Your task to perform on an android device: turn on the 12-hour format for clock Image 0: 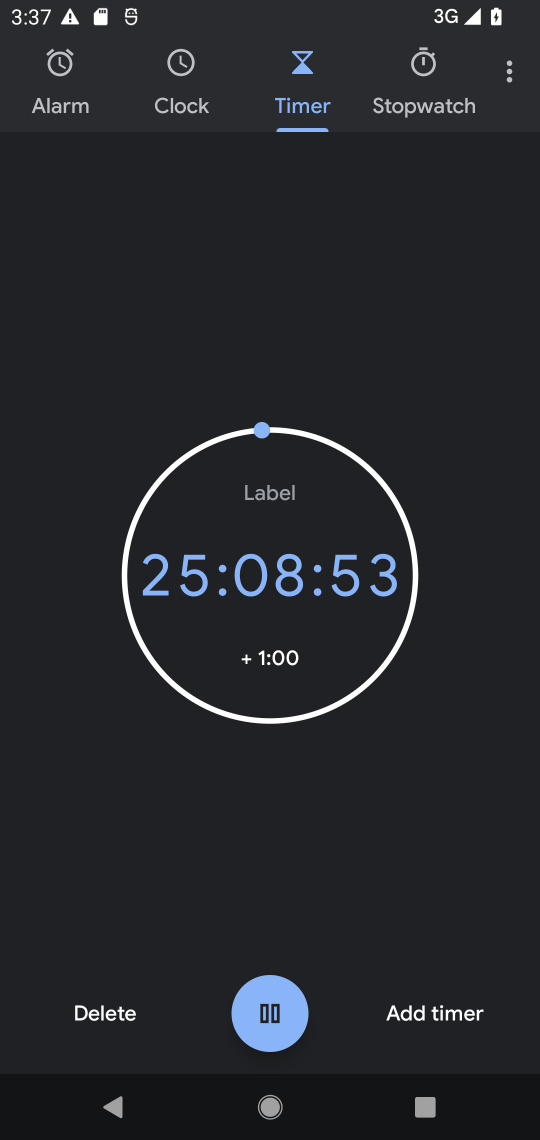
Step 0: click (522, 71)
Your task to perform on an android device: turn on the 12-hour format for clock Image 1: 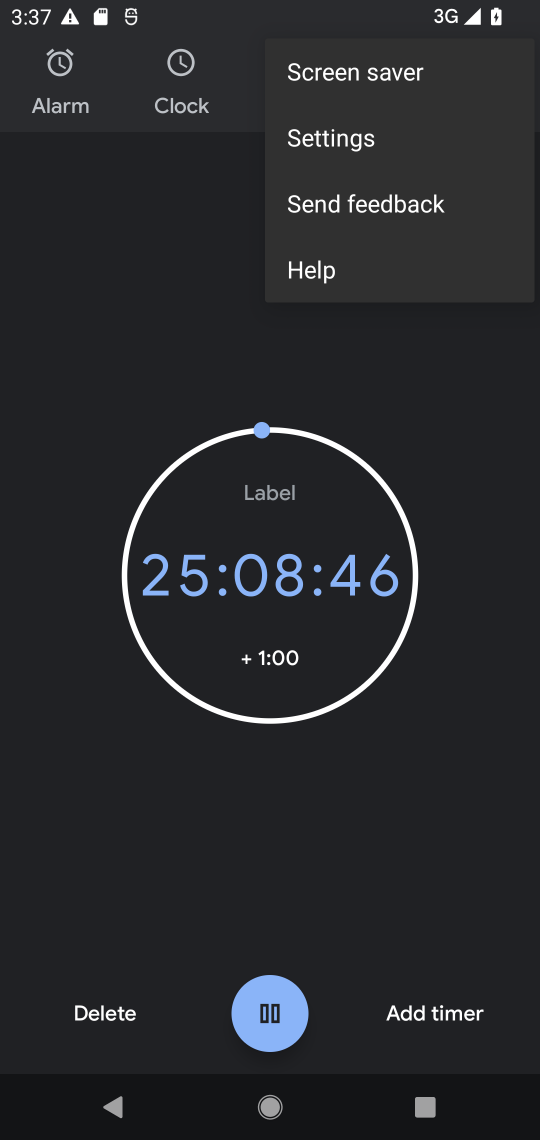
Step 1: click (354, 149)
Your task to perform on an android device: turn on the 12-hour format for clock Image 2: 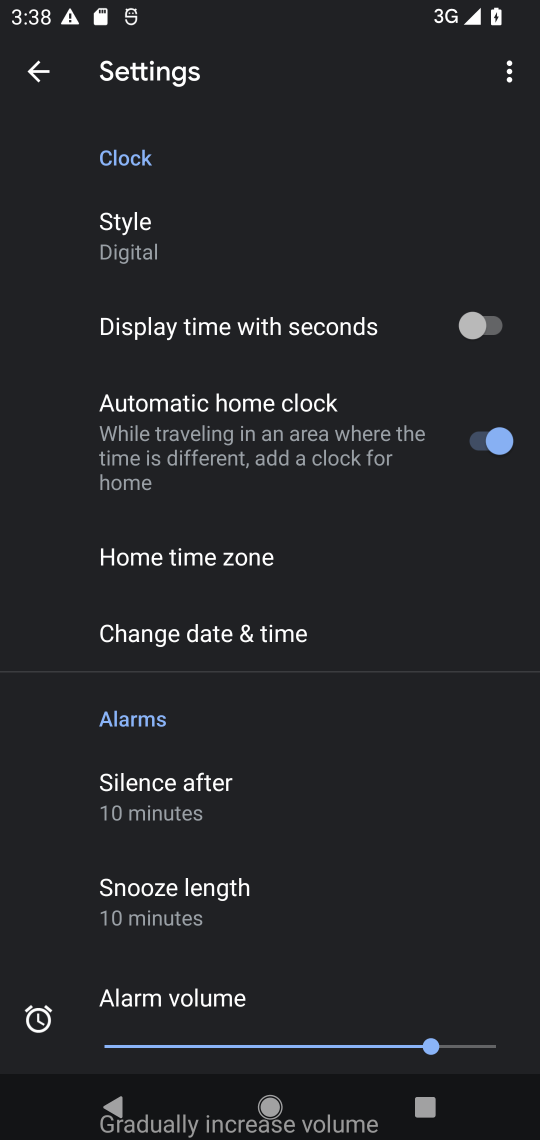
Step 2: drag from (152, 1018) to (269, 205)
Your task to perform on an android device: turn on the 12-hour format for clock Image 3: 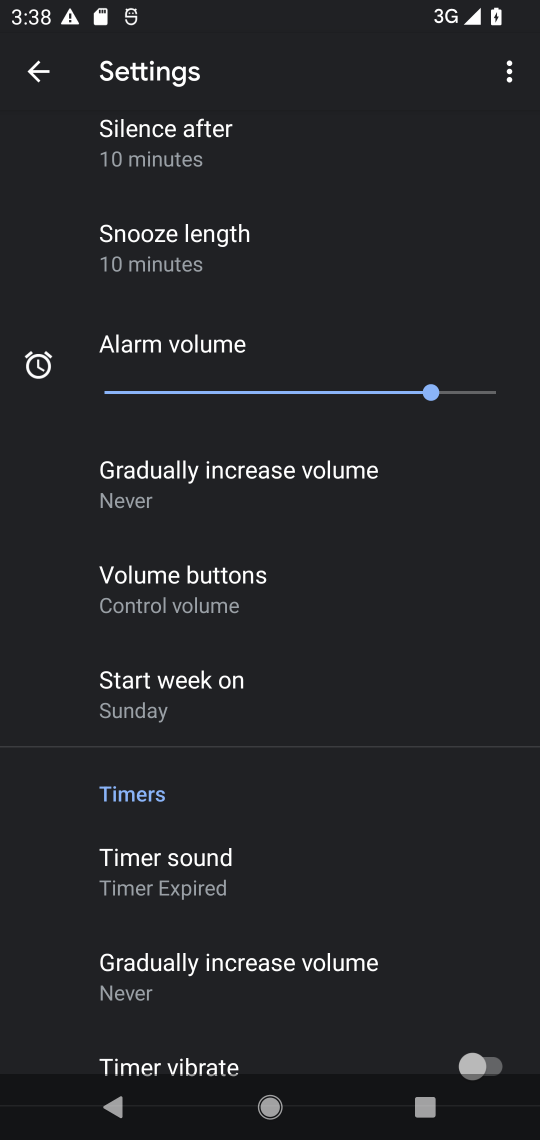
Step 3: drag from (291, 941) to (451, 232)
Your task to perform on an android device: turn on the 12-hour format for clock Image 4: 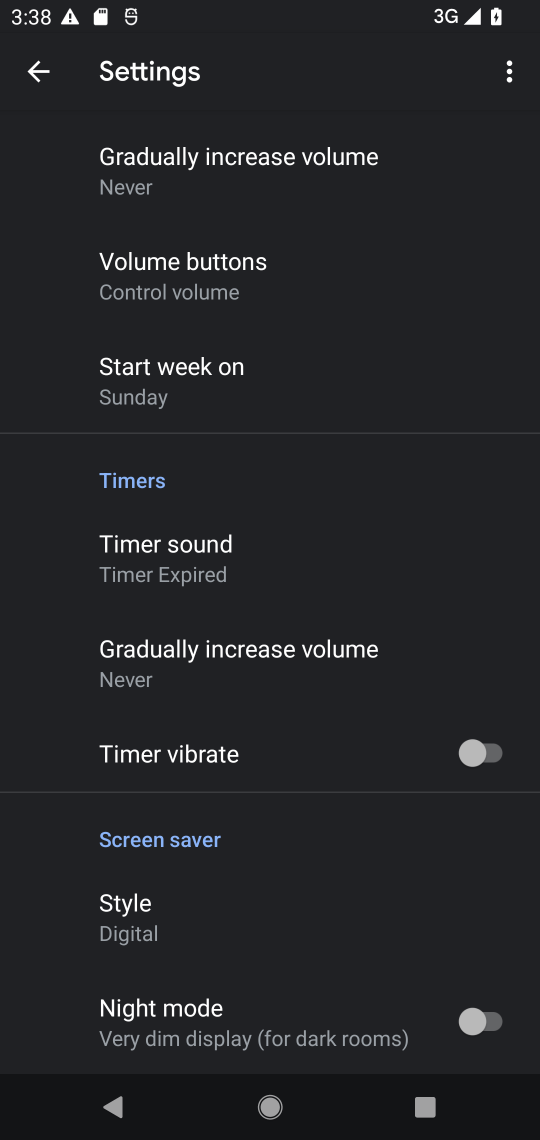
Step 4: drag from (307, 248) to (231, 890)
Your task to perform on an android device: turn on the 12-hour format for clock Image 5: 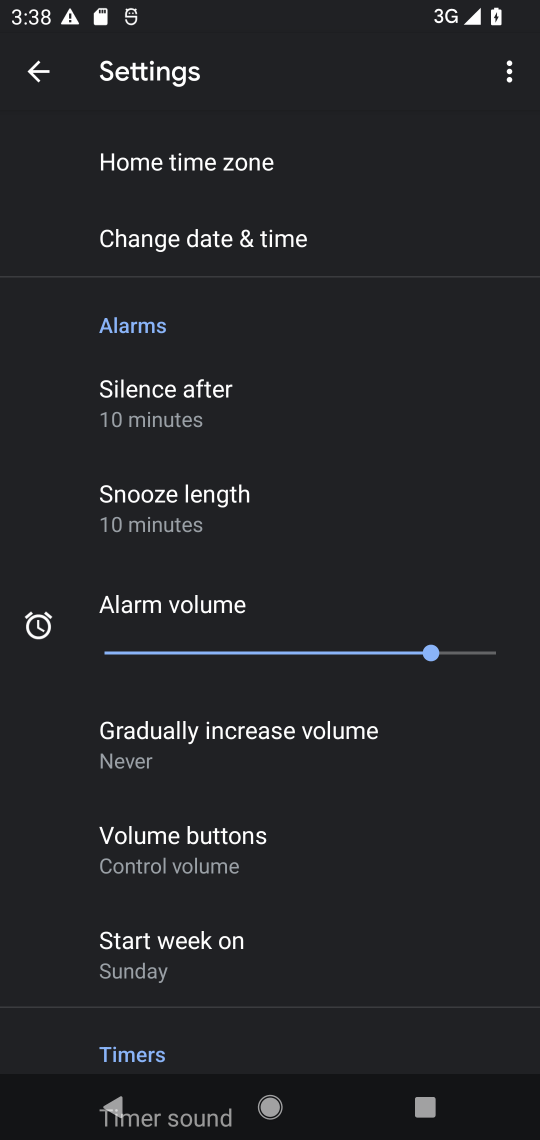
Step 5: click (184, 237)
Your task to perform on an android device: turn on the 12-hour format for clock Image 6: 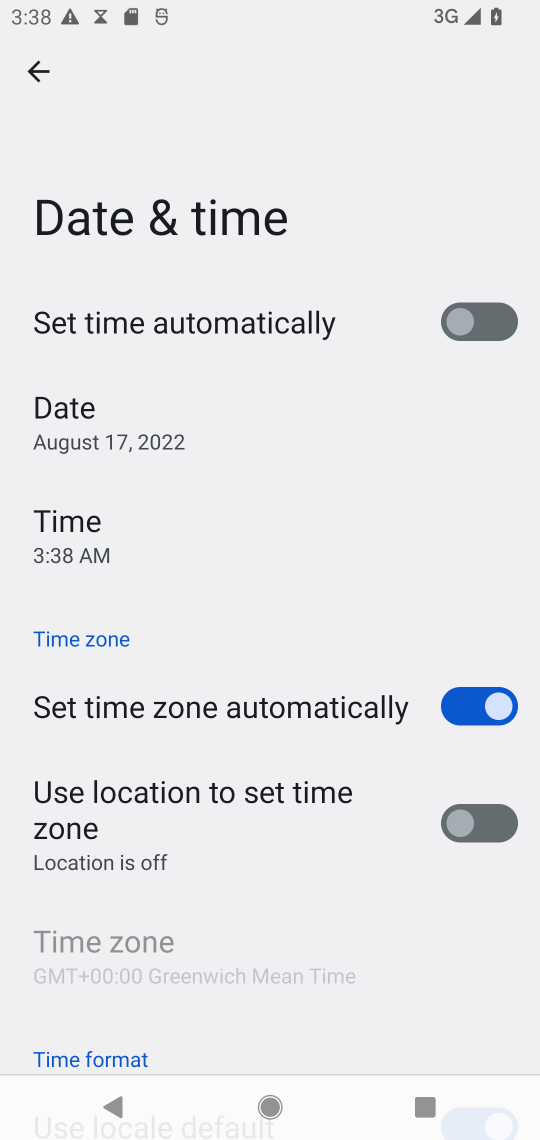
Step 6: task complete